Your task to perform on an android device: Search for seafood restaurants on Google Maps Image 0: 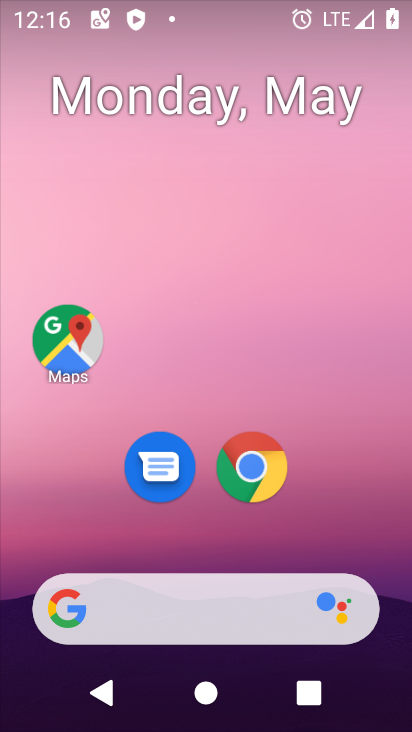
Step 0: click (69, 344)
Your task to perform on an android device: Search for seafood restaurants on Google Maps Image 1: 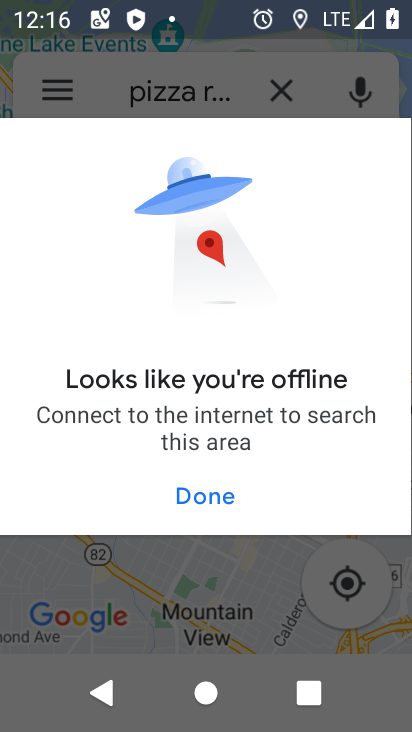
Step 1: click (212, 500)
Your task to perform on an android device: Search for seafood restaurants on Google Maps Image 2: 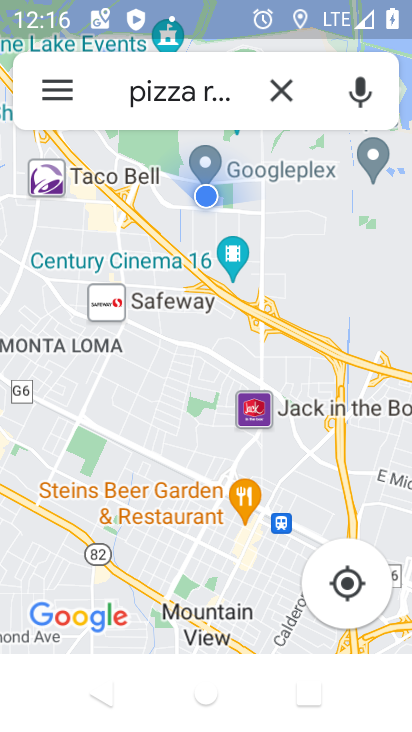
Step 2: click (286, 99)
Your task to perform on an android device: Search for seafood restaurants on Google Maps Image 3: 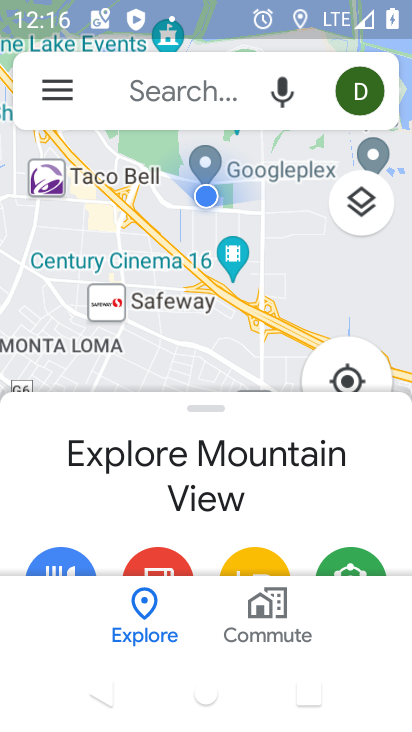
Step 3: click (125, 91)
Your task to perform on an android device: Search for seafood restaurants on Google Maps Image 4: 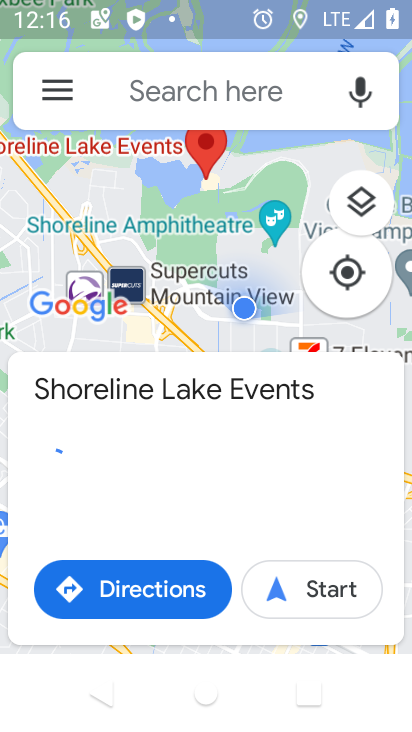
Step 4: click (138, 96)
Your task to perform on an android device: Search for seafood restaurants on Google Maps Image 5: 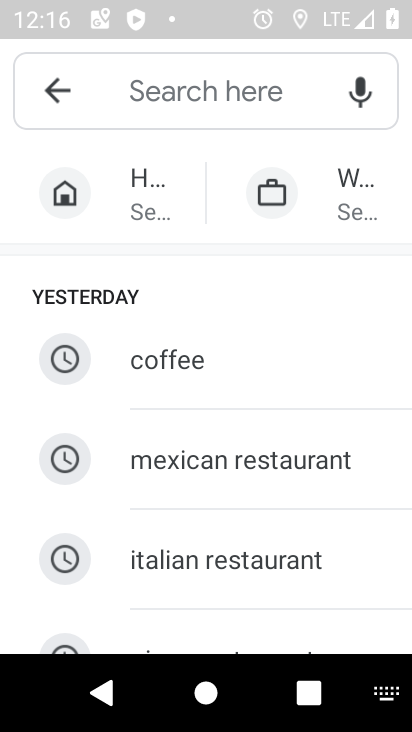
Step 5: type "seafood restaurant"
Your task to perform on an android device: Search for seafood restaurants on Google Maps Image 6: 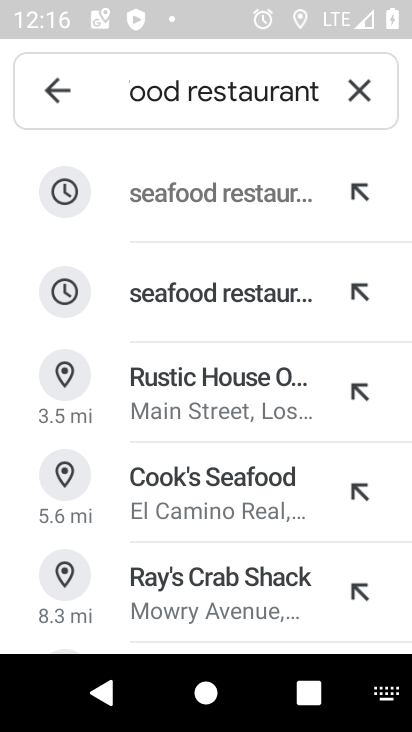
Step 6: click (208, 204)
Your task to perform on an android device: Search for seafood restaurants on Google Maps Image 7: 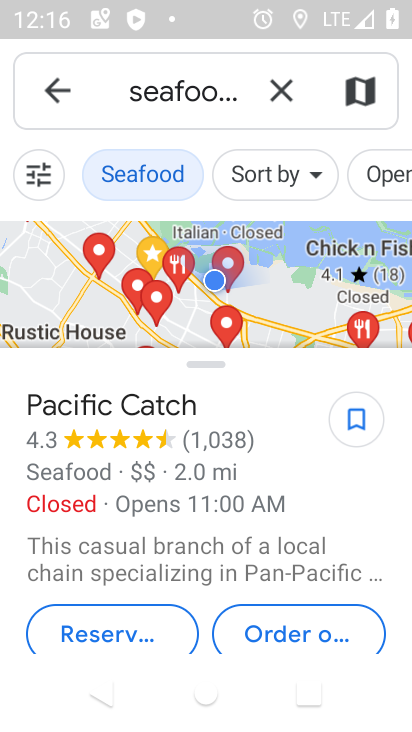
Step 7: task complete